Your task to perform on an android device: Open Youtube and go to the subscriptions tab Image 0: 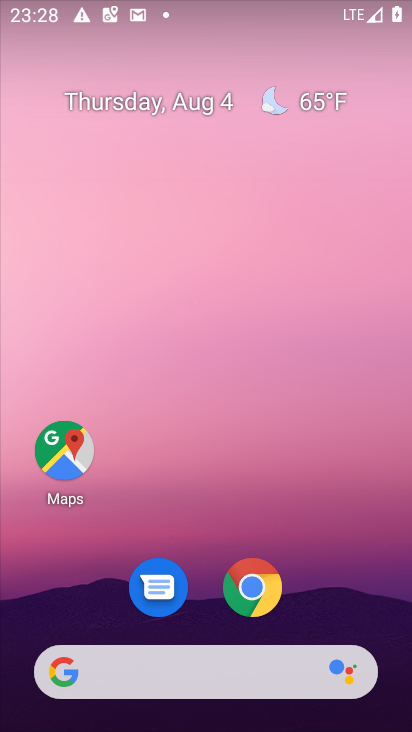
Step 0: drag from (154, 638) to (171, 296)
Your task to perform on an android device: Open Youtube and go to the subscriptions tab Image 1: 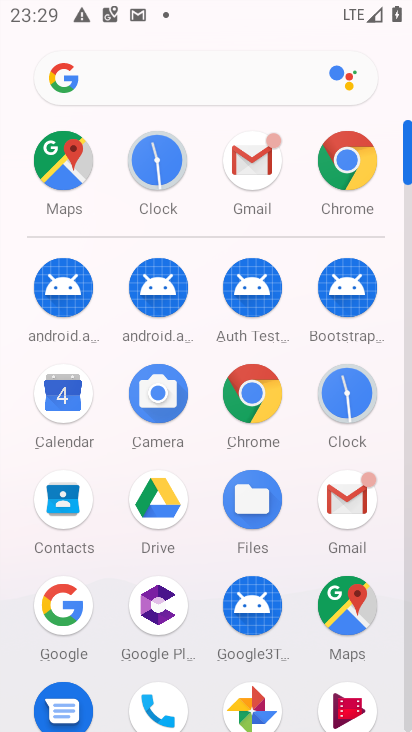
Step 1: drag from (300, 659) to (338, 424)
Your task to perform on an android device: Open Youtube and go to the subscriptions tab Image 2: 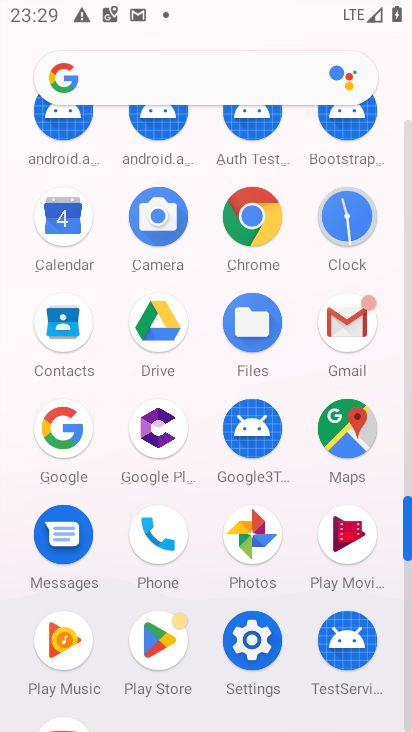
Step 2: click (342, 539)
Your task to perform on an android device: Open Youtube and go to the subscriptions tab Image 3: 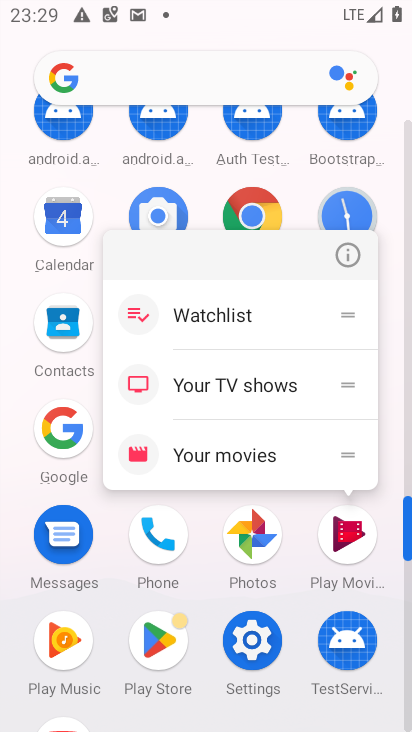
Step 3: click (293, 599)
Your task to perform on an android device: Open Youtube and go to the subscriptions tab Image 4: 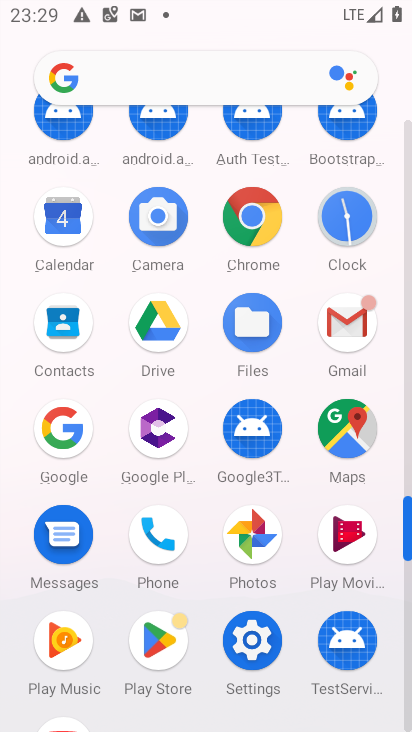
Step 4: drag from (293, 603) to (316, 262)
Your task to perform on an android device: Open Youtube and go to the subscriptions tab Image 5: 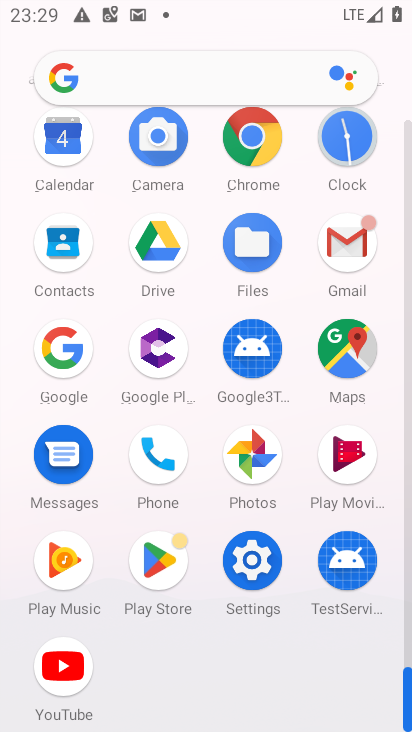
Step 5: click (40, 658)
Your task to perform on an android device: Open Youtube and go to the subscriptions tab Image 6: 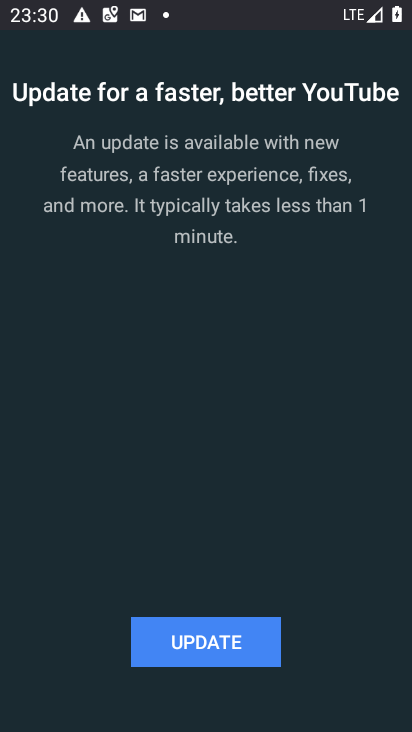
Step 6: click (201, 655)
Your task to perform on an android device: Open Youtube and go to the subscriptions tab Image 7: 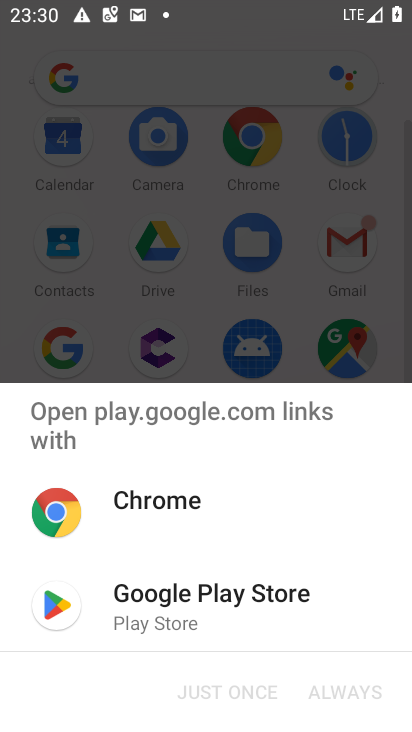
Step 7: click (362, 312)
Your task to perform on an android device: Open Youtube and go to the subscriptions tab Image 8: 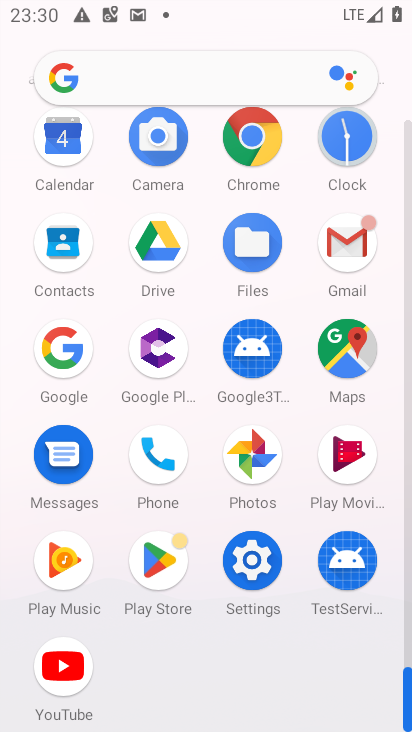
Step 8: click (60, 657)
Your task to perform on an android device: Open Youtube and go to the subscriptions tab Image 9: 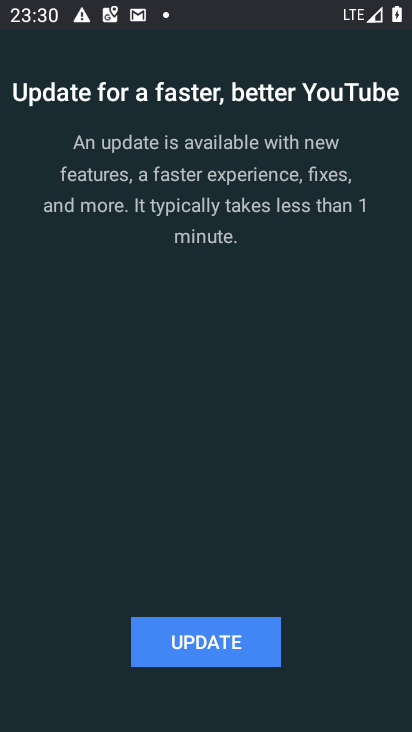
Step 9: task complete